Your task to perform on an android device: Go to Maps Image 0: 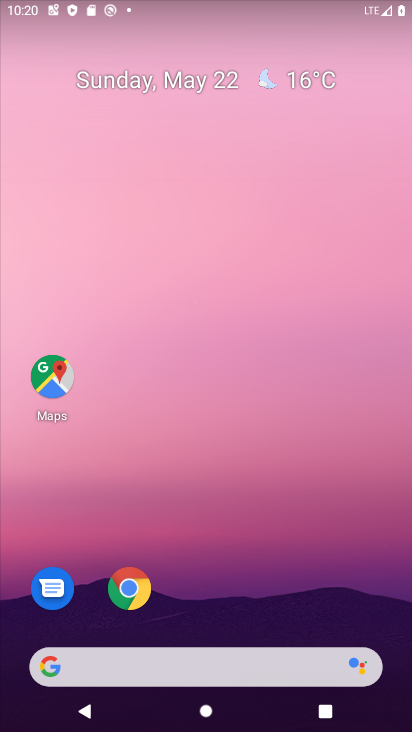
Step 0: click (56, 400)
Your task to perform on an android device: Go to Maps Image 1: 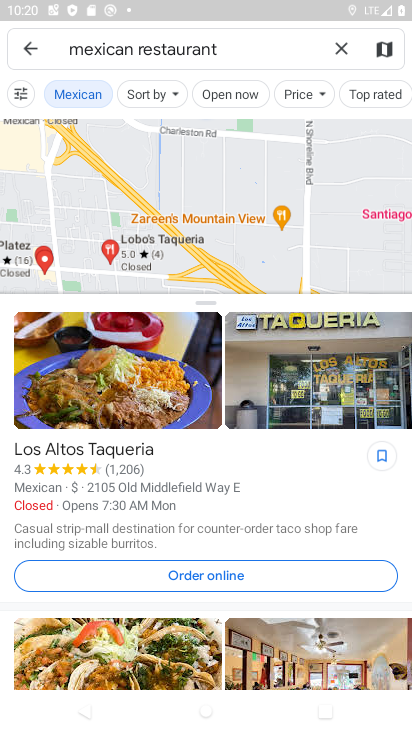
Step 1: task complete